Your task to perform on an android device: turn pop-ups off in chrome Image 0: 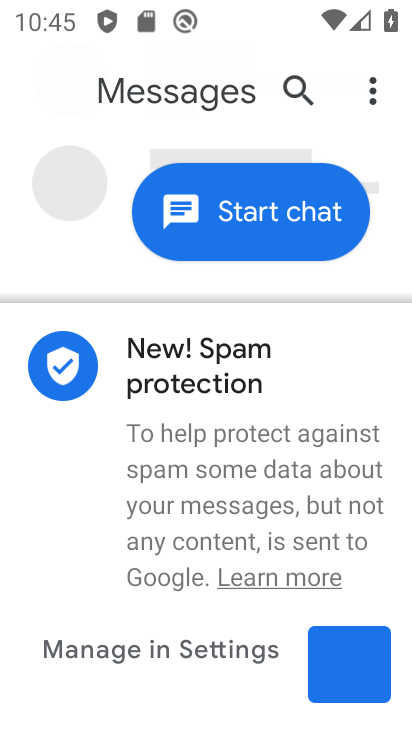
Step 0: press home button
Your task to perform on an android device: turn pop-ups off in chrome Image 1: 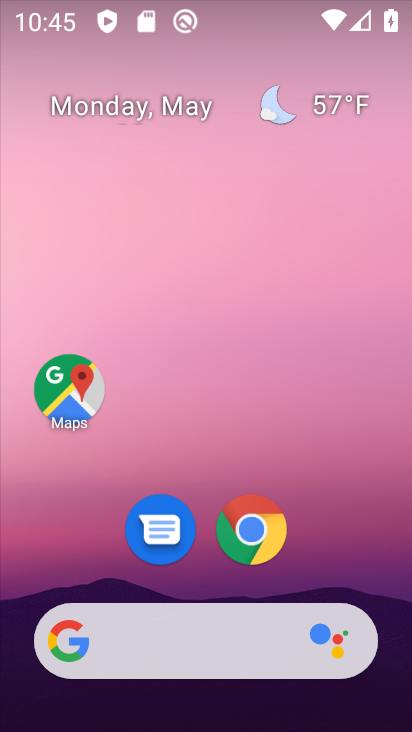
Step 1: click (253, 531)
Your task to perform on an android device: turn pop-ups off in chrome Image 2: 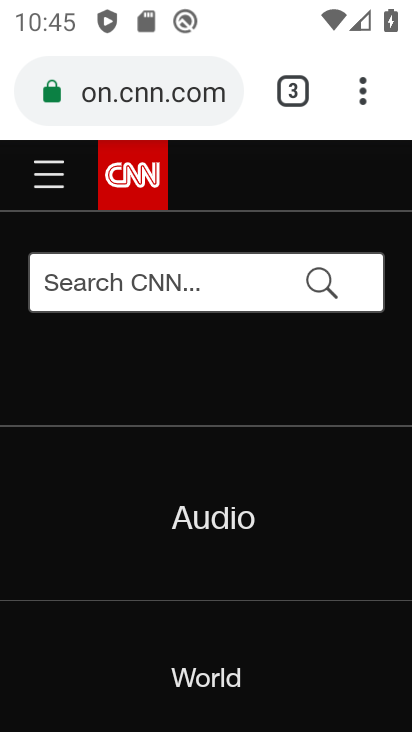
Step 2: click (365, 103)
Your task to perform on an android device: turn pop-ups off in chrome Image 3: 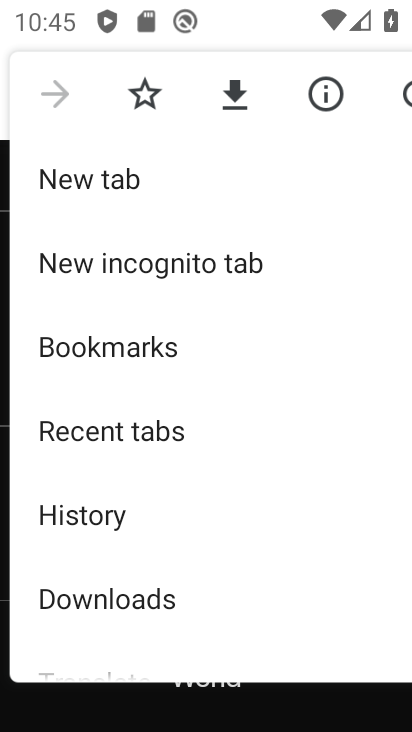
Step 3: drag from (93, 632) to (97, 130)
Your task to perform on an android device: turn pop-ups off in chrome Image 4: 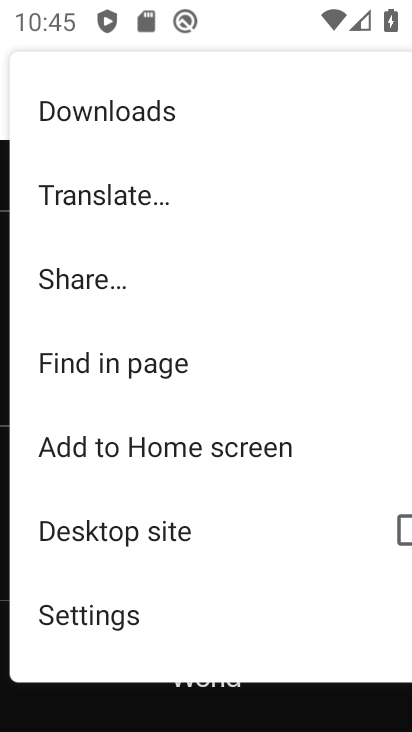
Step 4: click (98, 615)
Your task to perform on an android device: turn pop-ups off in chrome Image 5: 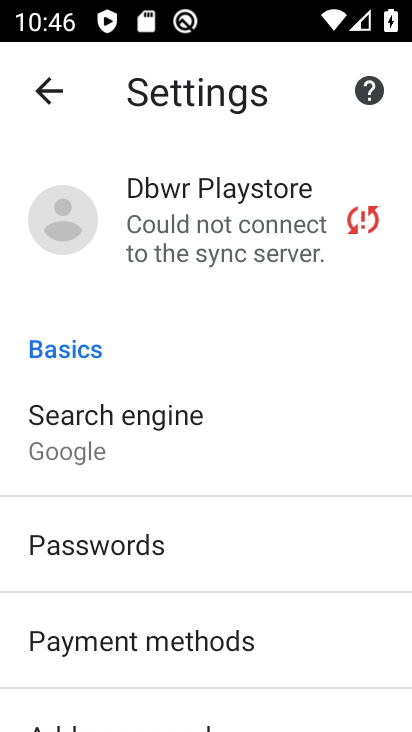
Step 5: drag from (101, 682) to (108, 312)
Your task to perform on an android device: turn pop-ups off in chrome Image 6: 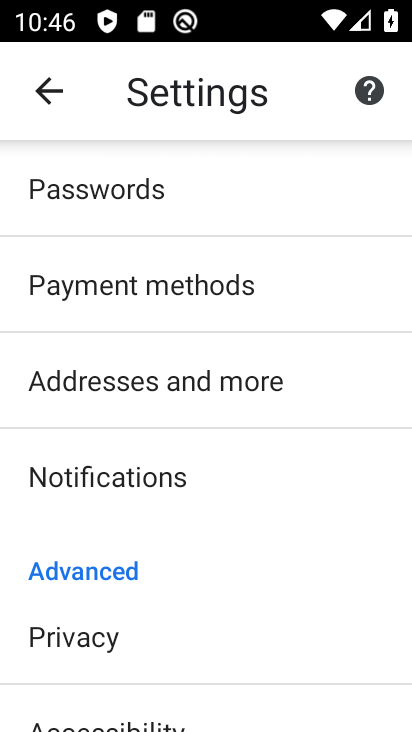
Step 6: drag from (117, 694) to (119, 300)
Your task to perform on an android device: turn pop-ups off in chrome Image 7: 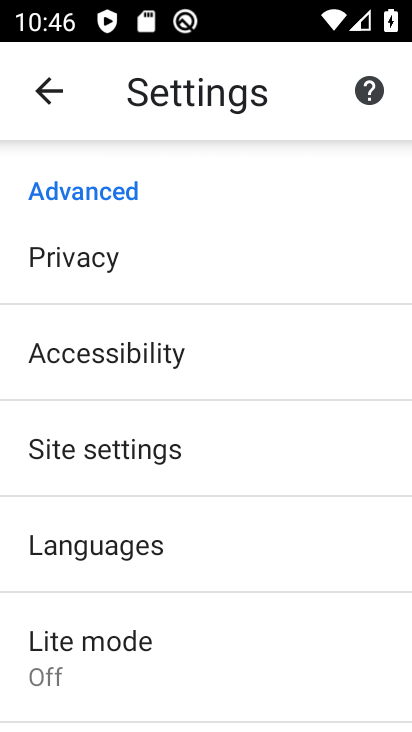
Step 7: click (122, 447)
Your task to perform on an android device: turn pop-ups off in chrome Image 8: 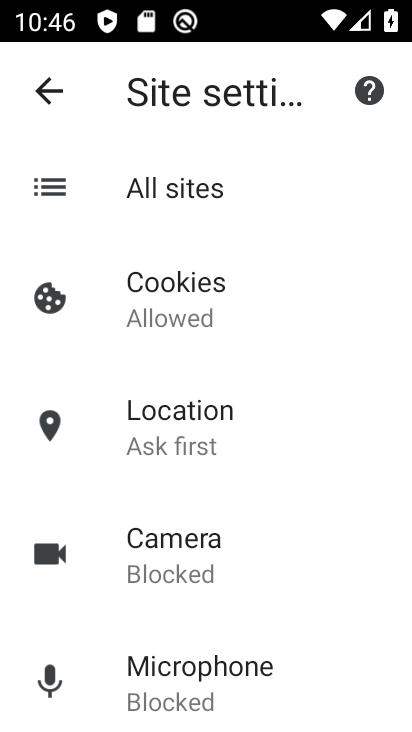
Step 8: drag from (181, 686) to (181, 608)
Your task to perform on an android device: turn pop-ups off in chrome Image 9: 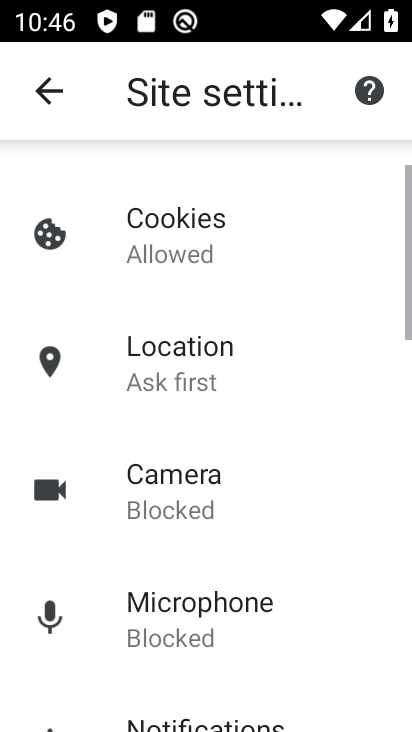
Step 9: drag from (183, 332) to (183, 190)
Your task to perform on an android device: turn pop-ups off in chrome Image 10: 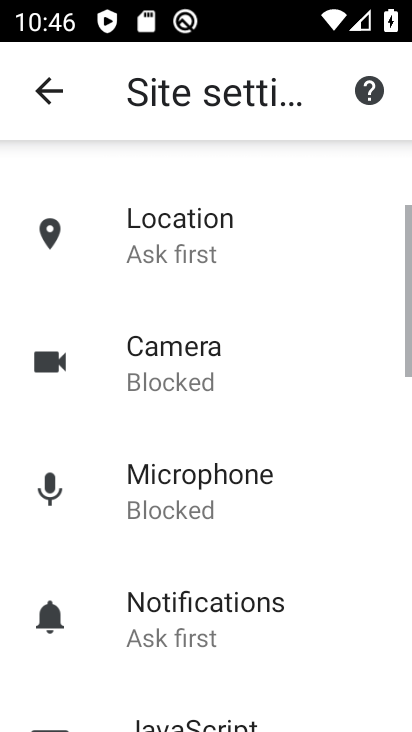
Step 10: drag from (179, 699) to (171, 246)
Your task to perform on an android device: turn pop-ups off in chrome Image 11: 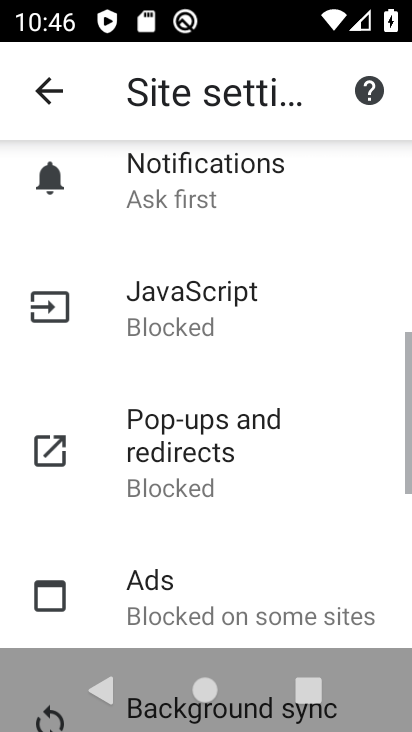
Step 11: click (171, 451)
Your task to perform on an android device: turn pop-ups off in chrome Image 12: 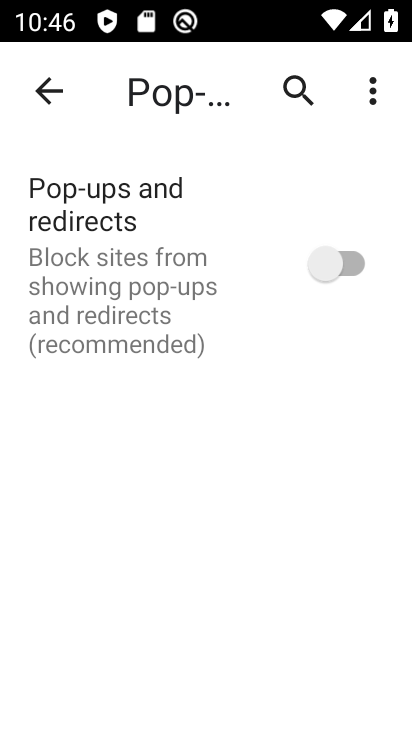
Step 12: task complete